Your task to perform on an android device: Go to internet settings Image 0: 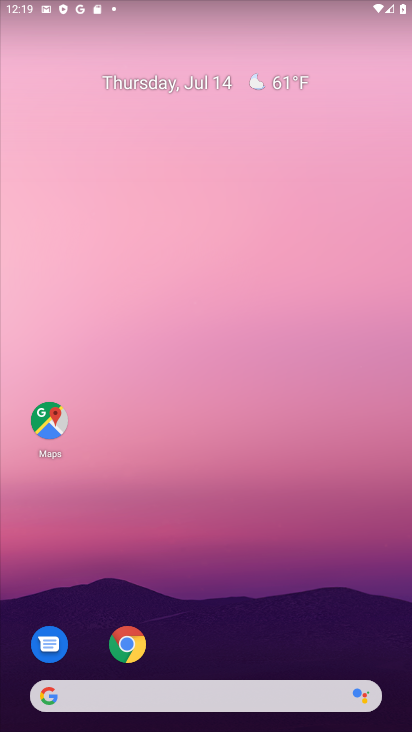
Step 0: drag from (296, 580) to (296, 99)
Your task to perform on an android device: Go to internet settings Image 1: 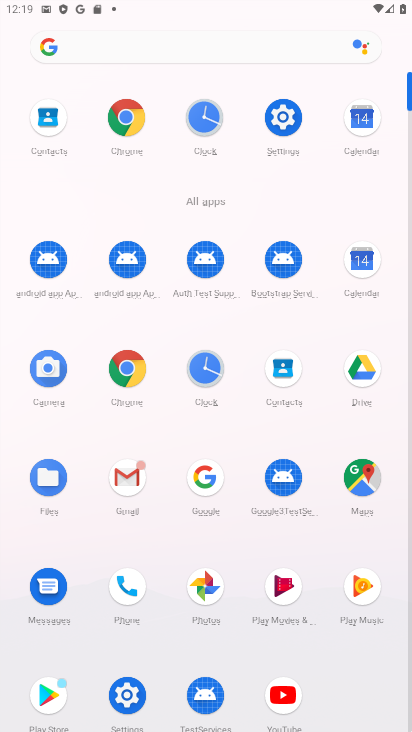
Step 1: click (286, 115)
Your task to perform on an android device: Go to internet settings Image 2: 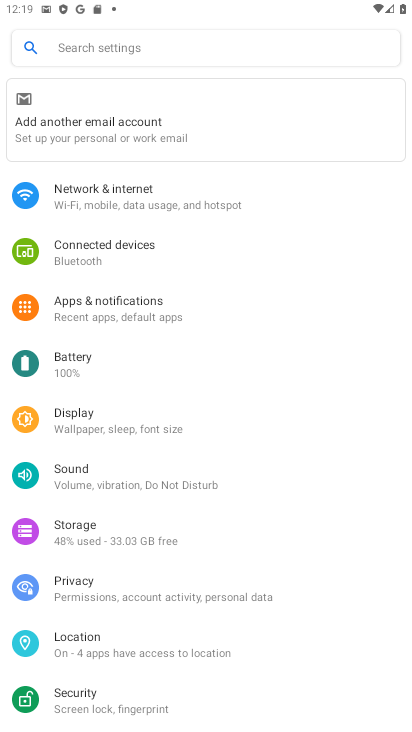
Step 2: click (146, 194)
Your task to perform on an android device: Go to internet settings Image 3: 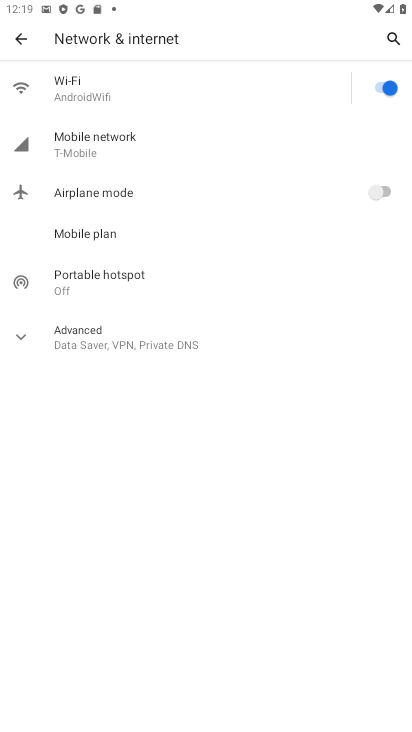
Step 3: click (110, 136)
Your task to perform on an android device: Go to internet settings Image 4: 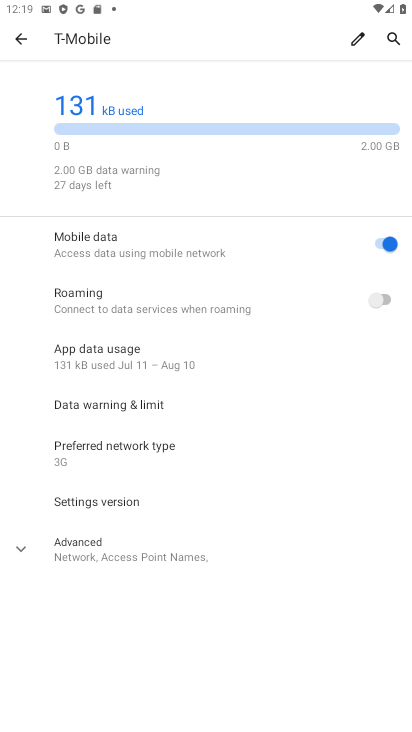
Step 4: task complete